Your task to perform on an android device: turn off notifications in google photos Image 0: 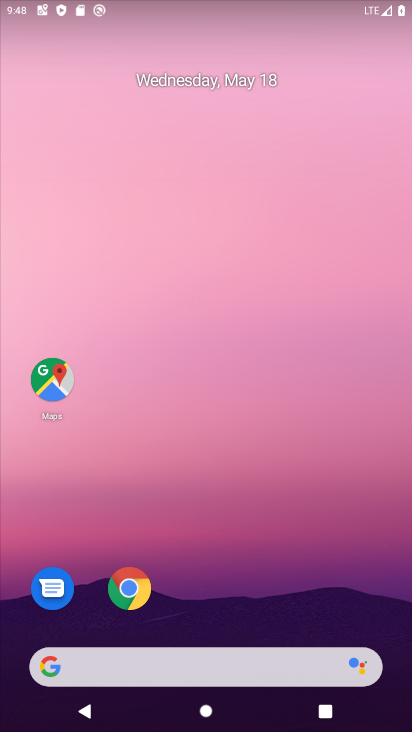
Step 0: drag from (331, 632) to (342, 1)
Your task to perform on an android device: turn off notifications in google photos Image 1: 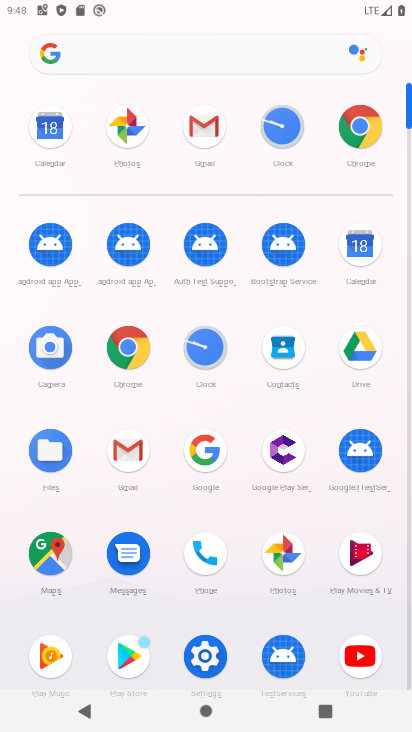
Step 1: click (136, 128)
Your task to perform on an android device: turn off notifications in google photos Image 2: 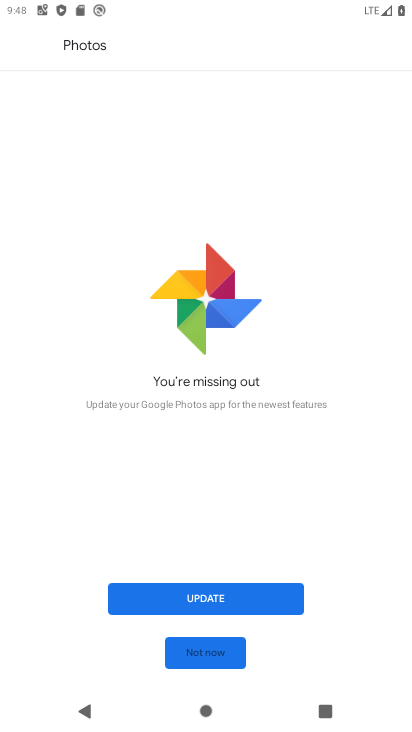
Step 2: click (205, 653)
Your task to perform on an android device: turn off notifications in google photos Image 3: 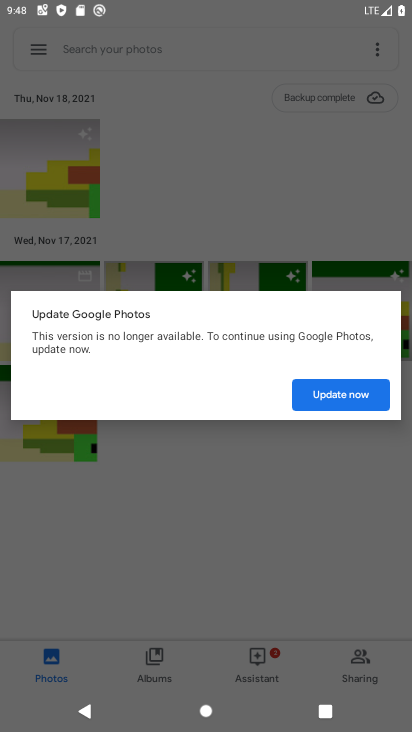
Step 3: click (333, 402)
Your task to perform on an android device: turn off notifications in google photos Image 4: 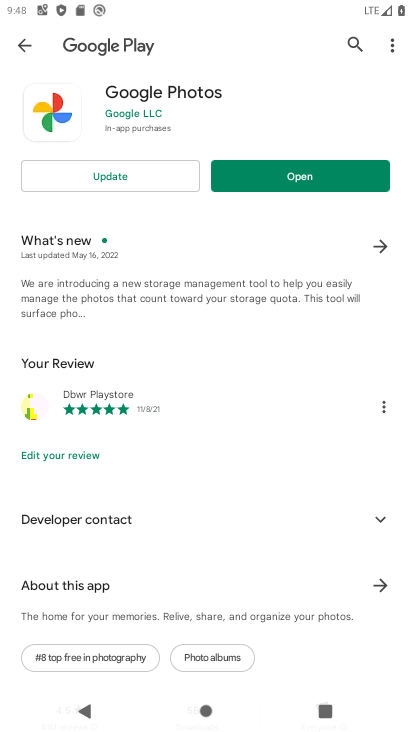
Step 4: click (279, 164)
Your task to perform on an android device: turn off notifications in google photos Image 5: 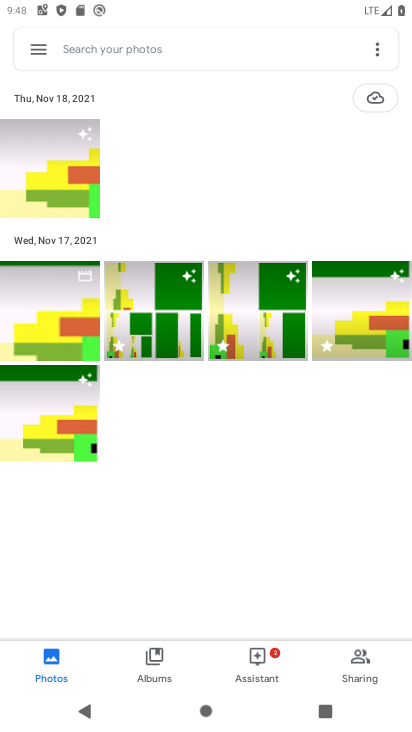
Step 5: click (33, 50)
Your task to perform on an android device: turn off notifications in google photos Image 6: 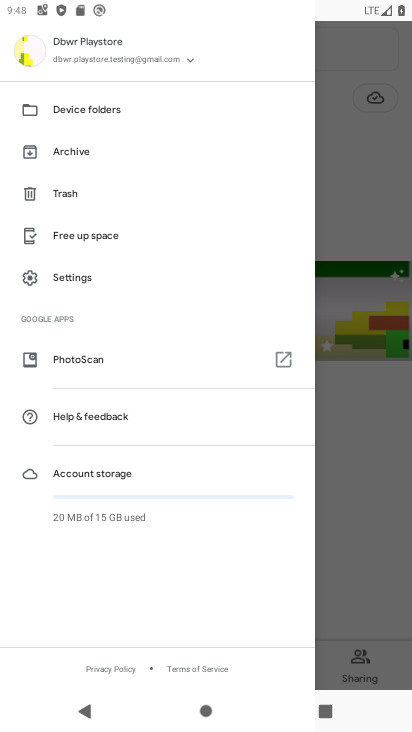
Step 6: click (71, 276)
Your task to perform on an android device: turn off notifications in google photos Image 7: 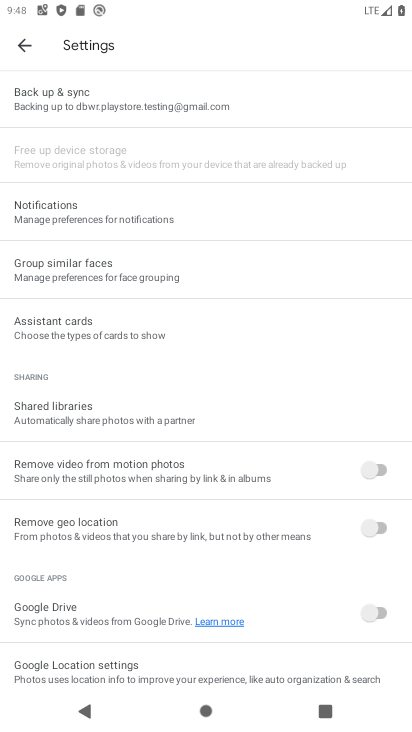
Step 7: click (53, 221)
Your task to perform on an android device: turn off notifications in google photos Image 8: 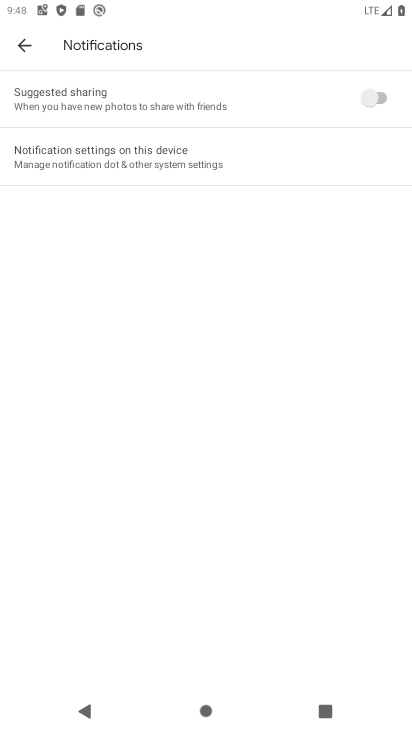
Step 8: click (85, 158)
Your task to perform on an android device: turn off notifications in google photos Image 9: 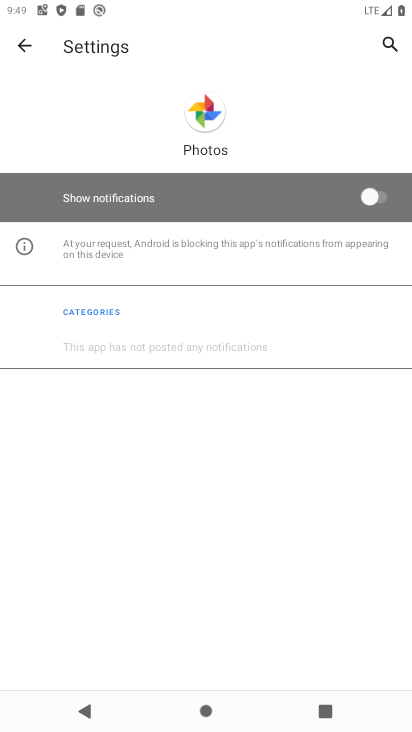
Step 9: task complete